Your task to perform on an android device: toggle notification dots Image 0: 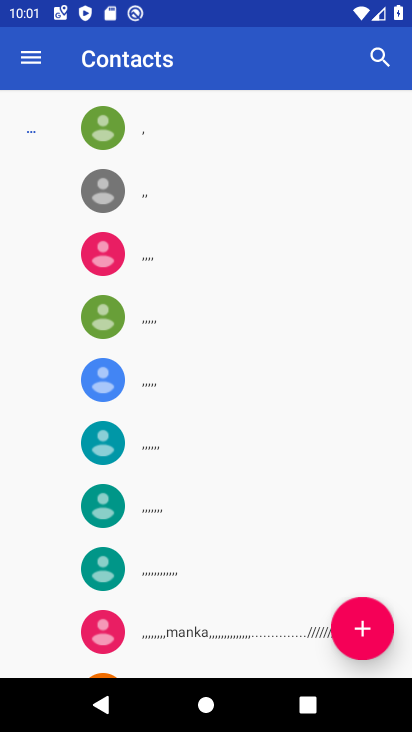
Step 0: press back button
Your task to perform on an android device: toggle notification dots Image 1: 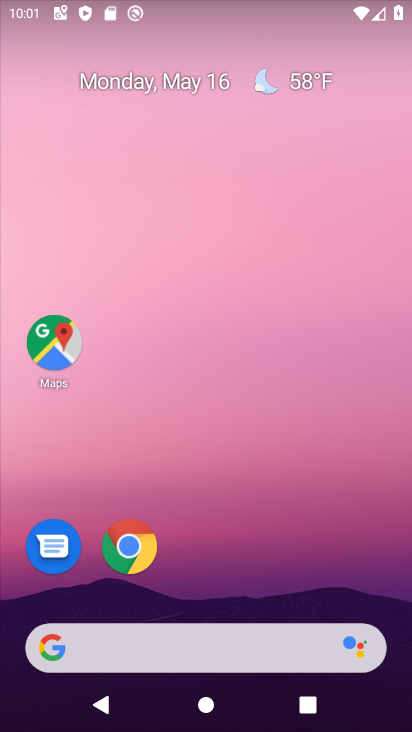
Step 1: drag from (264, 561) to (227, 213)
Your task to perform on an android device: toggle notification dots Image 2: 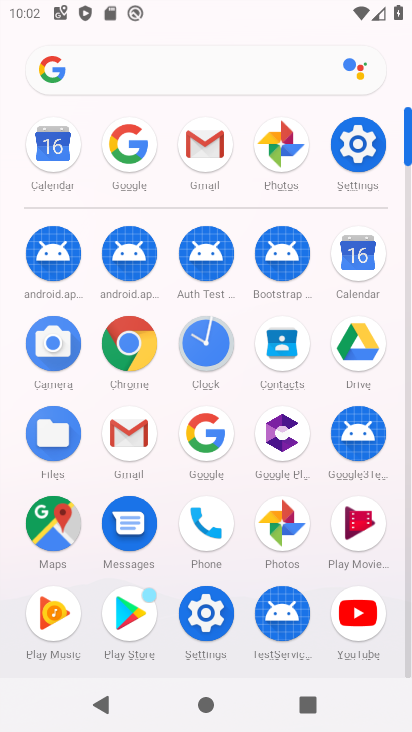
Step 2: click (355, 144)
Your task to perform on an android device: toggle notification dots Image 3: 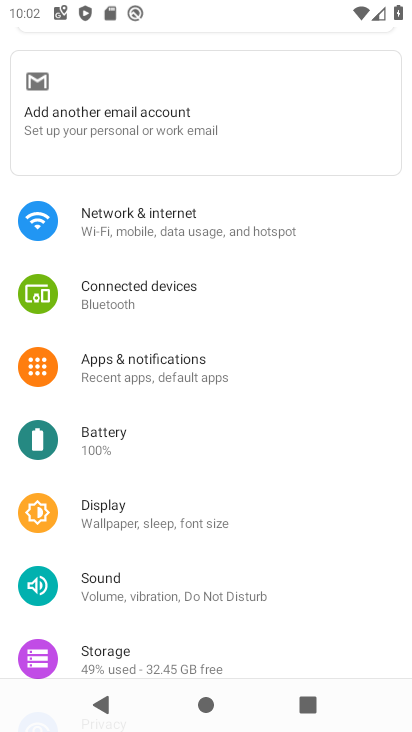
Step 3: click (156, 367)
Your task to perform on an android device: toggle notification dots Image 4: 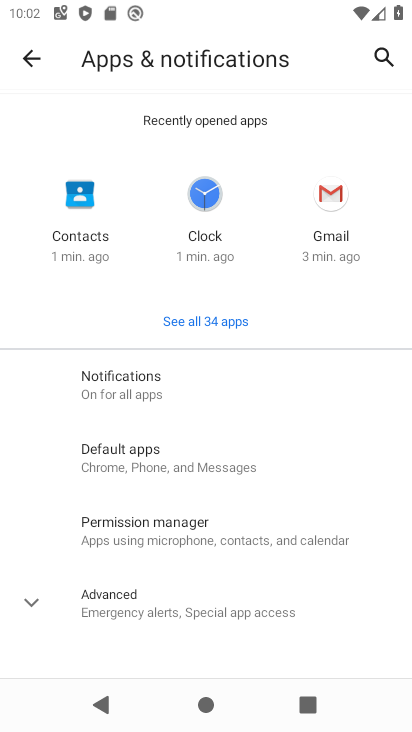
Step 4: click (118, 383)
Your task to perform on an android device: toggle notification dots Image 5: 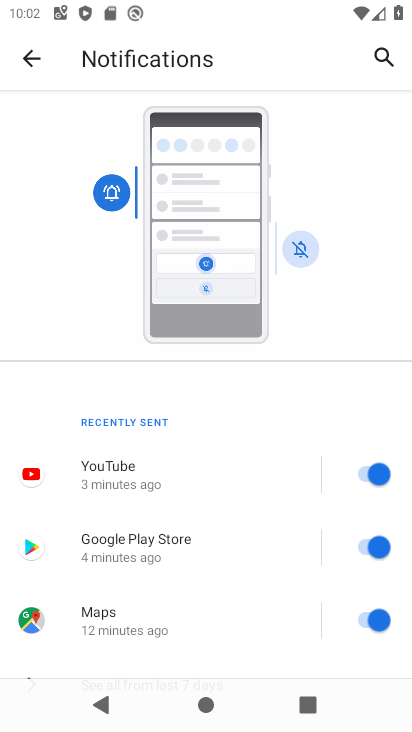
Step 5: drag from (147, 521) to (195, 407)
Your task to perform on an android device: toggle notification dots Image 6: 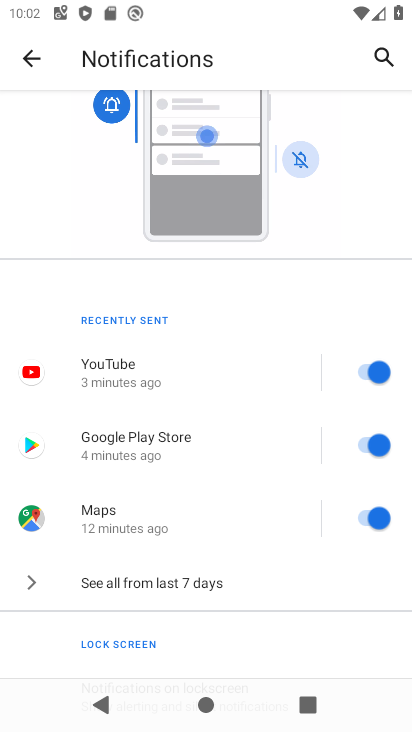
Step 6: drag from (169, 603) to (204, 503)
Your task to perform on an android device: toggle notification dots Image 7: 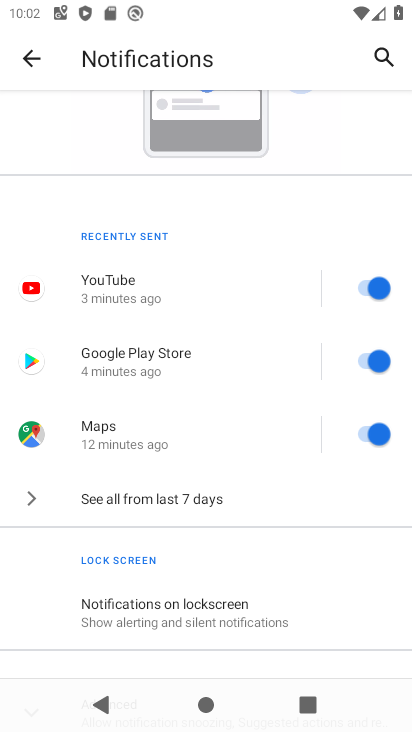
Step 7: drag from (194, 568) to (208, 441)
Your task to perform on an android device: toggle notification dots Image 8: 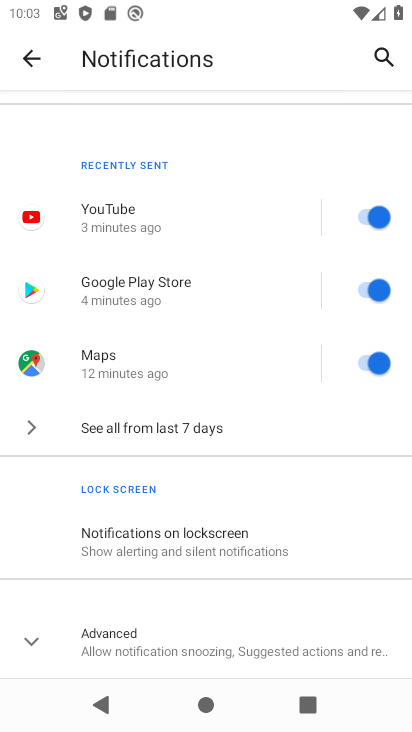
Step 8: drag from (177, 607) to (197, 532)
Your task to perform on an android device: toggle notification dots Image 9: 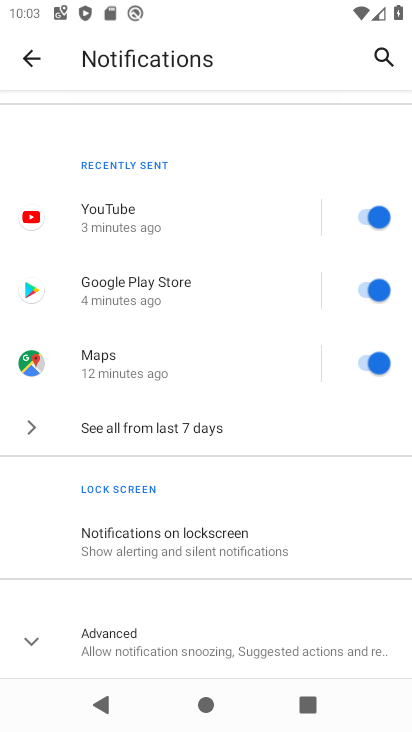
Step 9: click (159, 645)
Your task to perform on an android device: toggle notification dots Image 10: 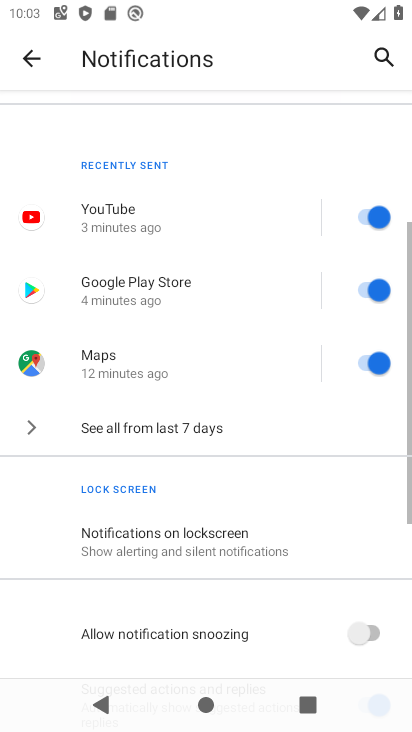
Step 10: drag from (178, 614) to (195, 489)
Your task to perform on an android device: toggle notification dots Image 11: 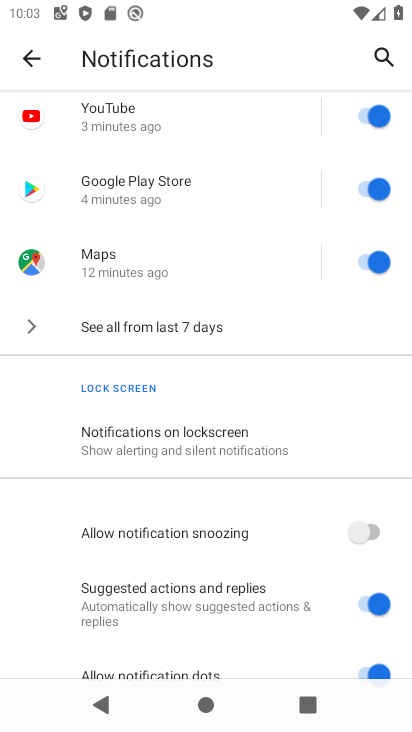
Step 11: drag from (198, 615) to (200, 490)
Your task to perform on an android device: toggle notification dots Image 12: 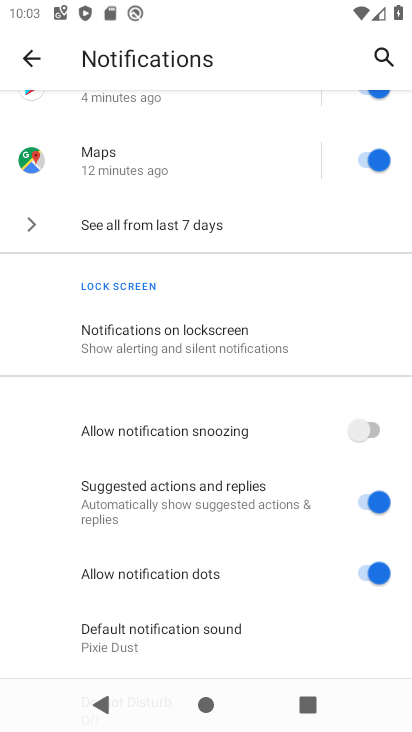
Step 12: click (368, 577)
Your task to perform on an android device: toggle notification dots Image 13: 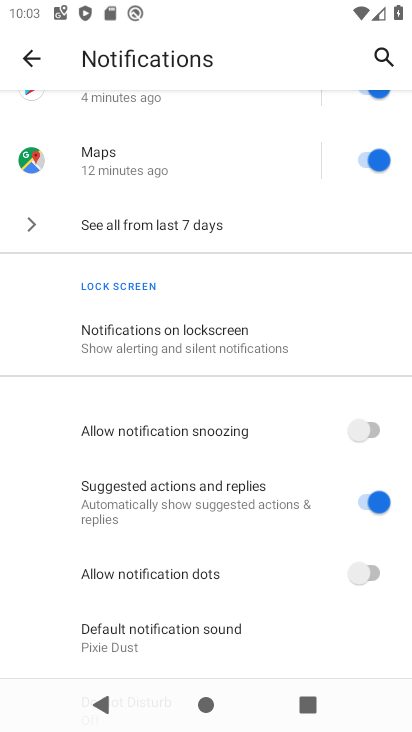
Step 13: task complete